Your task to perform on an android device: check data usage Image 0: 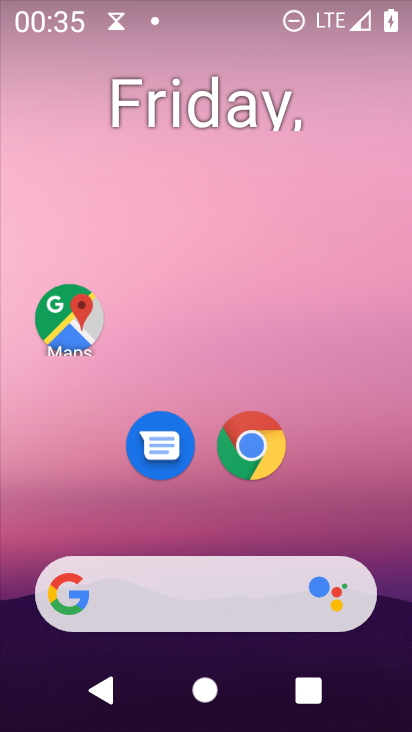
Step 0: drag from (243, 724) to (240, 64)
Your task to perform on an android device: check data usage Image 1: 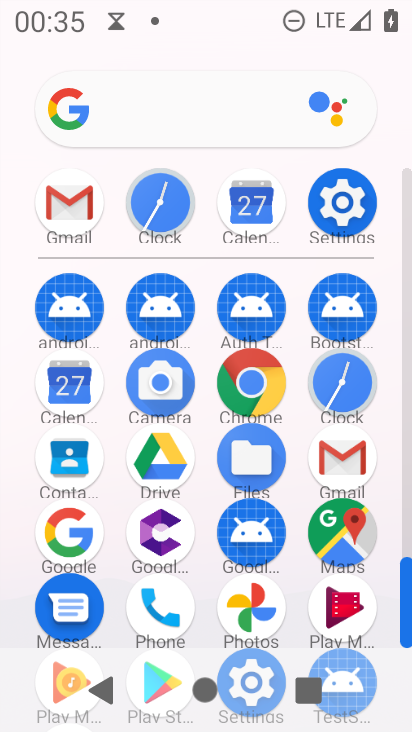
Step 1: click (360, 207)
Your task to perform on an android device: check data usage Image 2: 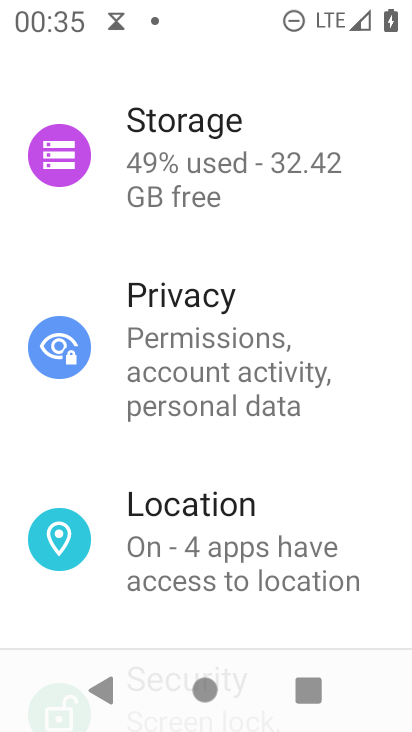
Step 2: drag from (319, 208) to (331, 583)
Your task to perform on an android device: check data usage Image 3: 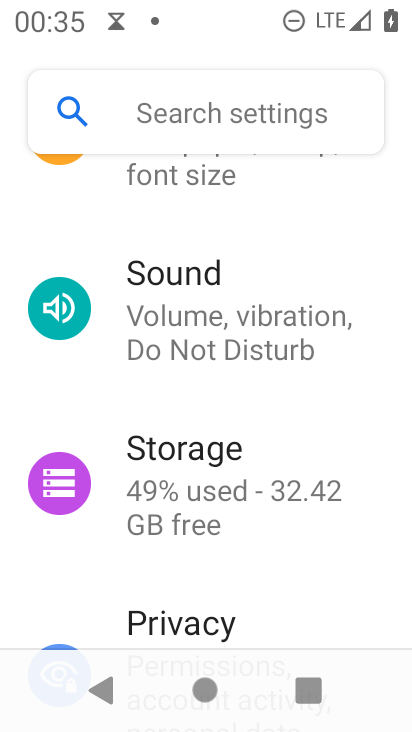
Step 3: drag from (293, 158) to (292, 586)
Your task to perform on an android device: check data usage Image 4: 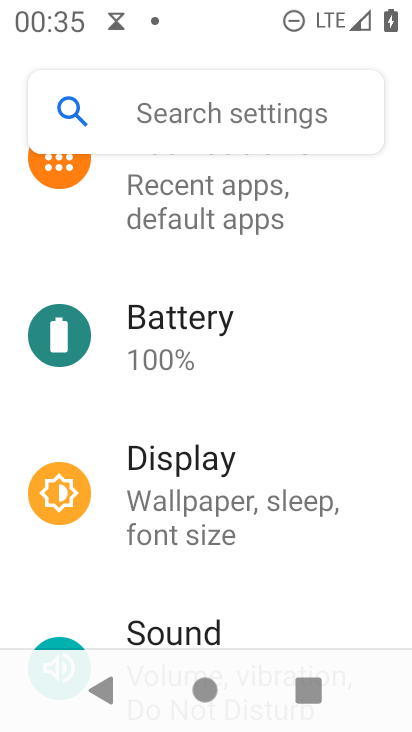
Step 4: drag from (285, 168) to (302, 580)
Your task to perform on an android device: check data usage Image 5: 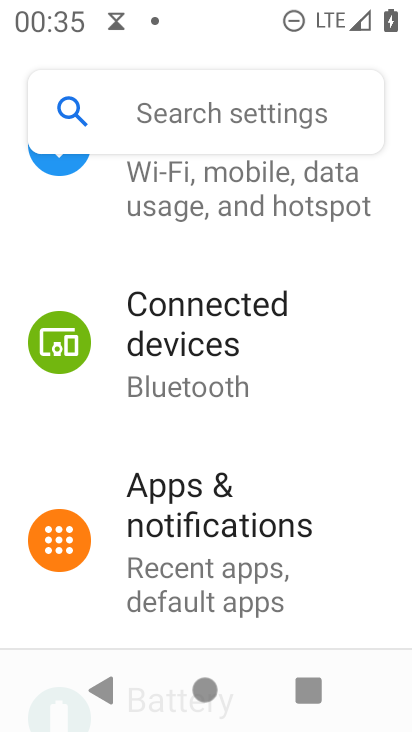
Step 5: drag from (265, 164) to (284, 598)
Your task to perform on an android device: check data usage Image 6: 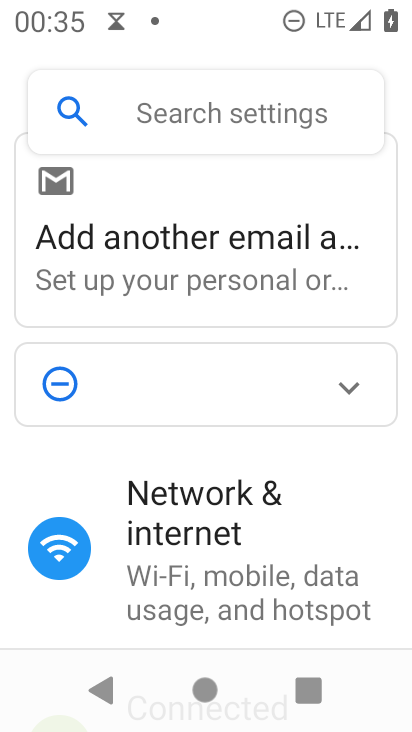
Step 6: click (179, 533)
Your task to perform on an android device: check data usage Image 7: 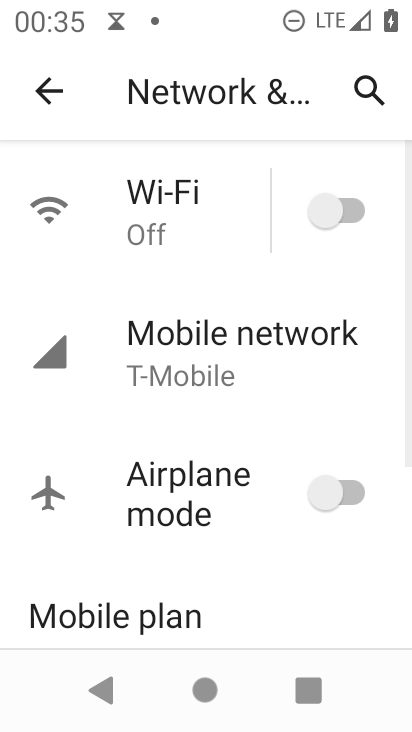
Step 7: click (197, 345)
Your task to perform on an android device: check data usage Image 8: 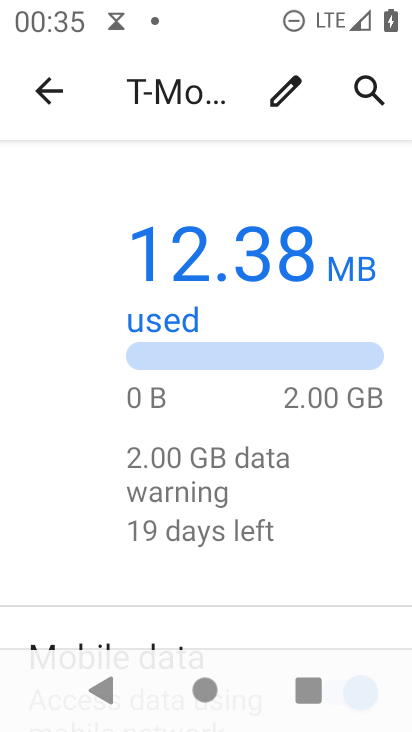
Step 8: drag from (231, 632) to (250, 229)
Your task to perform on an android device: check data usage Image 9: 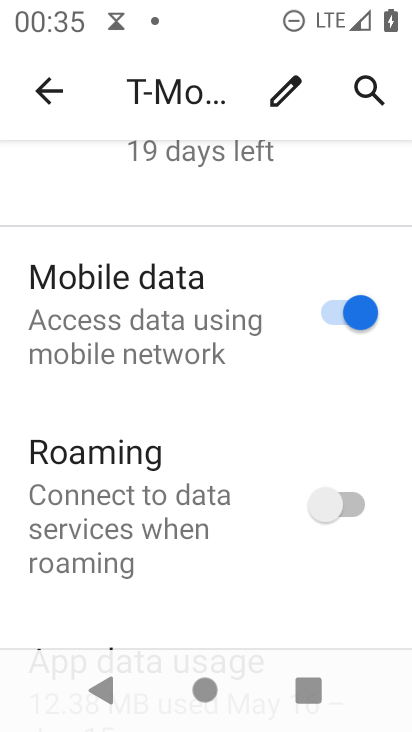
Step 9: drag from (186, 633) to (192, 292)
Your task to perform on an android device: check data usage Image 10: 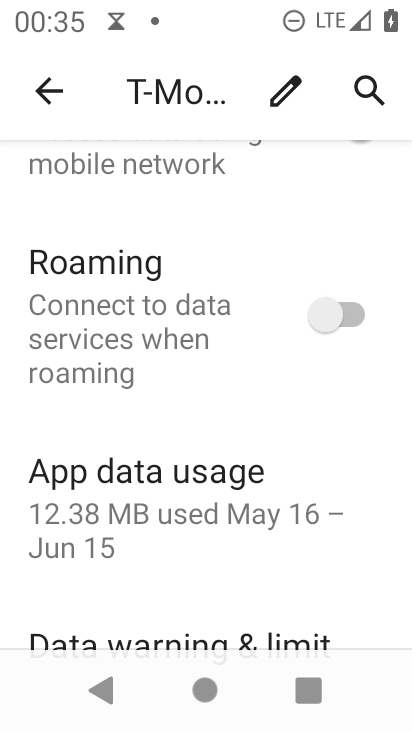
Step 10: click (122, 495)
Your task to perform on an android device: check data usage Image 11: 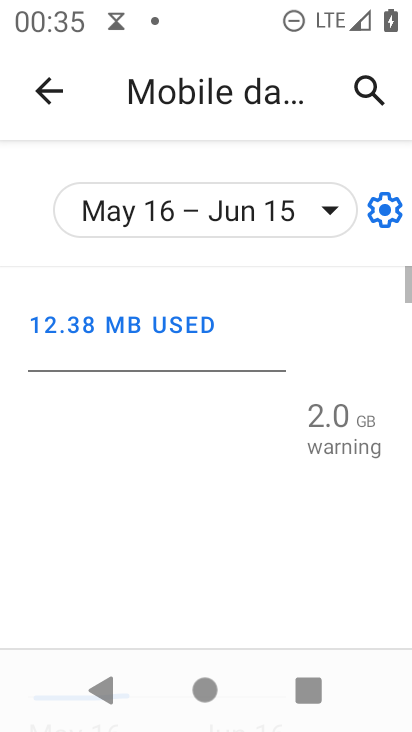
Step 11: task complete